Your task to perform on an android device: toggle pop-ups in chrome Image 0: 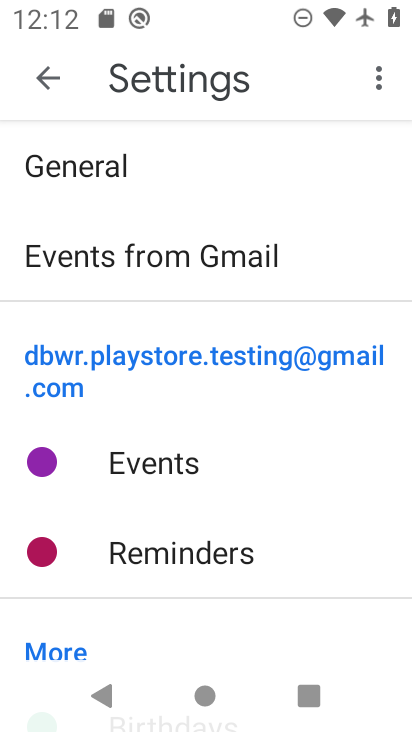
Step 0: press back button
Your task to perform on an android device: toggle pop-ups in chrome Image 1: 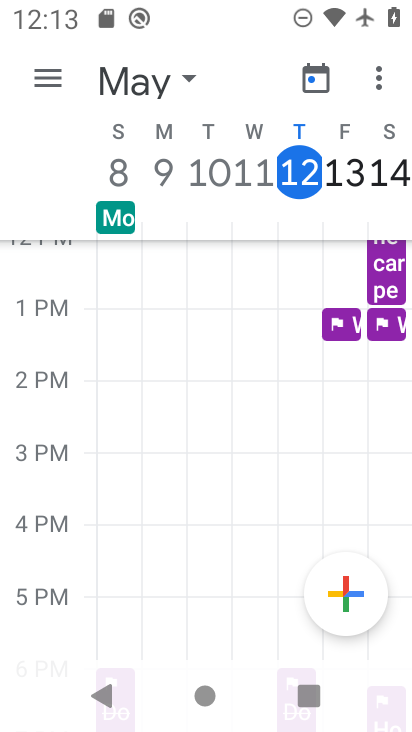
Step 1: press back button
Your task to perform on an android device: toggle pop-ups in chrome Image 2: 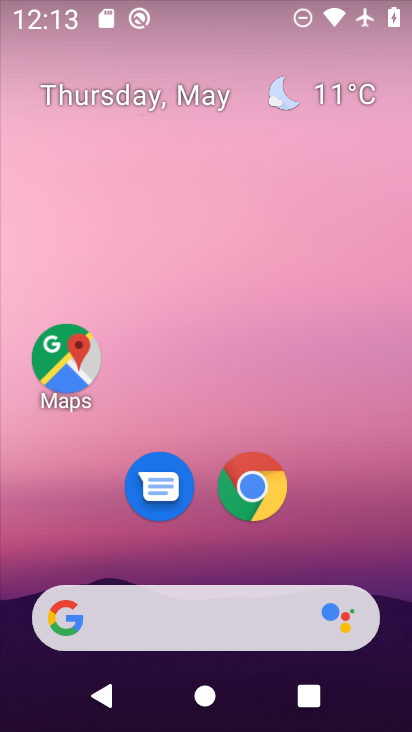
Step 2: drag from (327, 470) to (245, 11)
Your task to perform on an android device: toggle pop-ups in chrome Image 3: 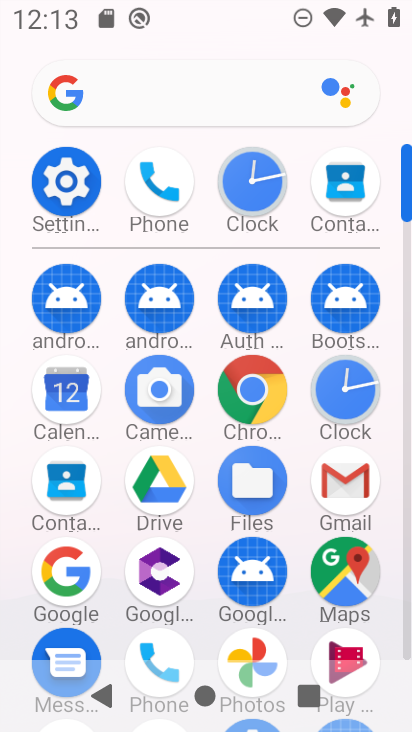
Step 3: click (253, 383)
Your task to perform on an android device: toggle pop-ups in chrome Image 4: 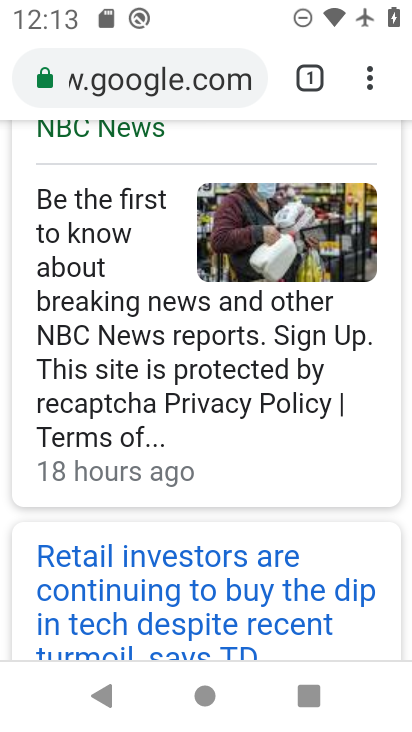
Step 4: drag from (364, 78) to (195, 554)
Your task to perform on an android device: toggle pop-ups in chrome Image 5: 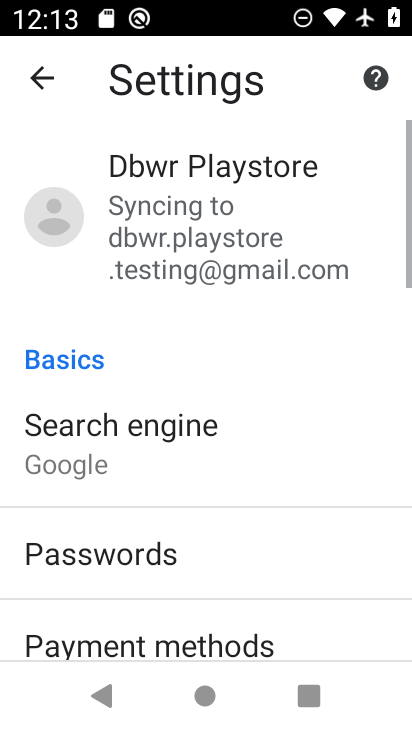
Step 5: drag from (239, 546) to (266, 168)
Your task to perform on an android device: toggle pop-ups in chrome Image 6: 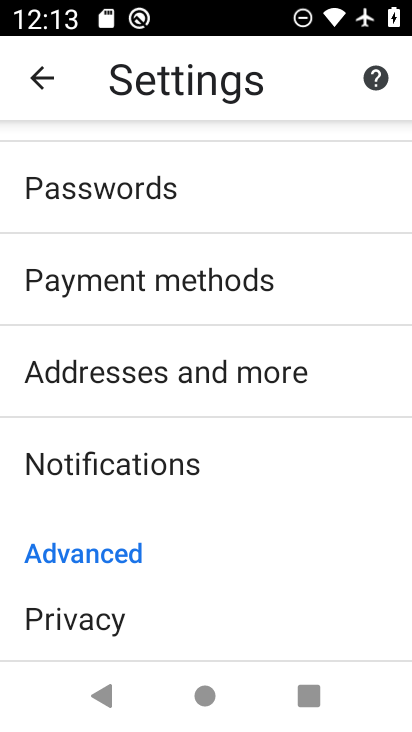
Step 6: drag from (260, 594) to (299, 176)
Your task to perform on an android device: toggle pop-ups in chrome Image 7: 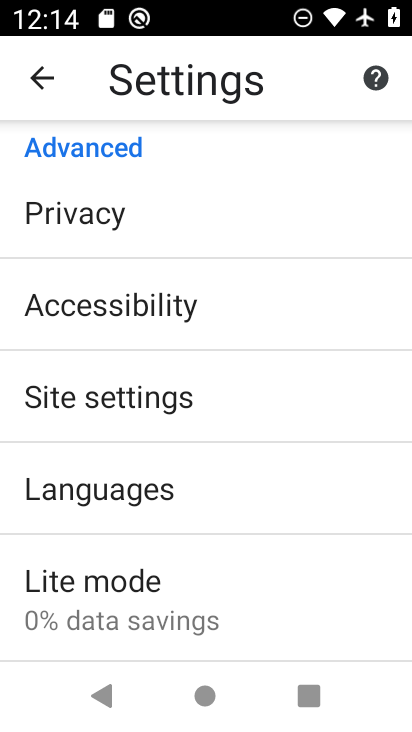
Step 7: click (174, 406)
Your task to perform on an android device: toggle pop-ups in chrome Image 8: 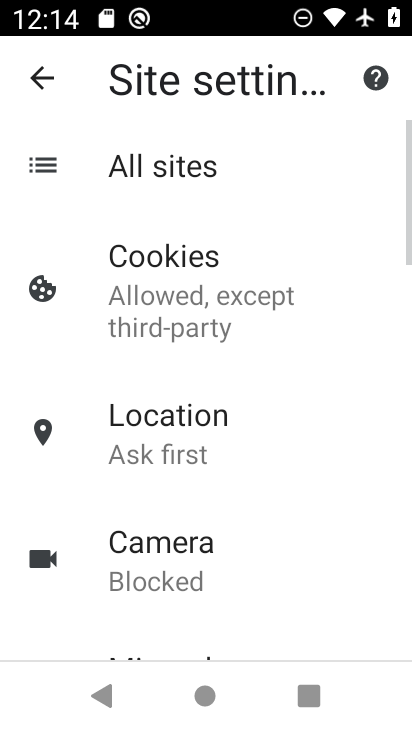
Step 8: drag from (287, 586) to (295, 169)
Your task to perform on an android device: toggle pop-ups in chrome Image 9: 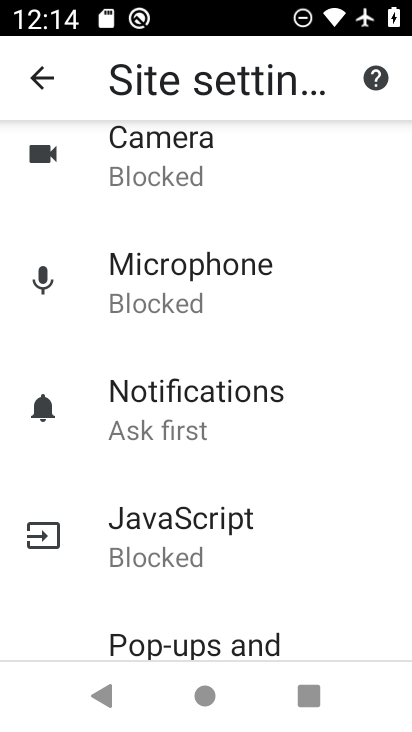
Step 9: drag from (282, 547) to (270, 208)
Your task to perform on an android device: toggle pop-ups in chrome Image 10: 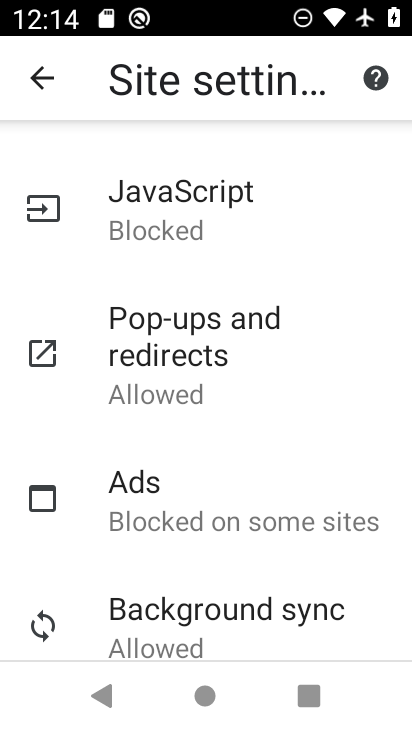
Step 10: click (208, 320)
Your task to perform on an android device: toggle pop-ups in chrome Image 11: 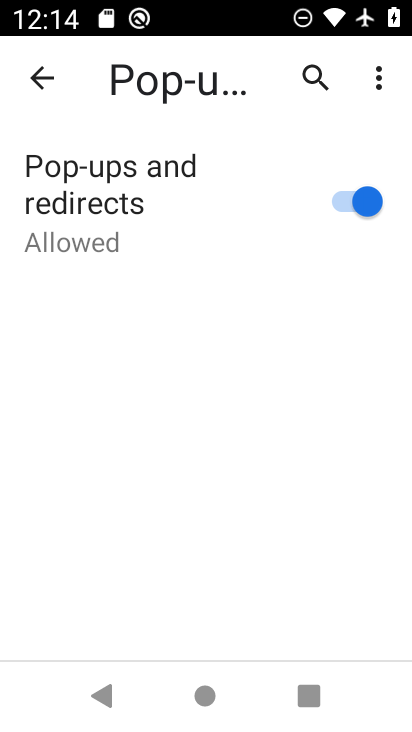
Step 11: click (364, 198)
Your task to perform on an android device: toggle pop-ups in chrome Image 12: 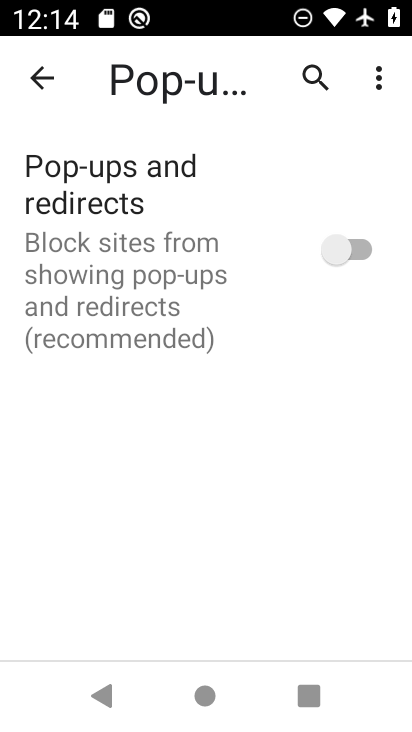
Step 12: task complete